Your task to perform on an android device: Open calendar and show me the second week of next month Image 0: 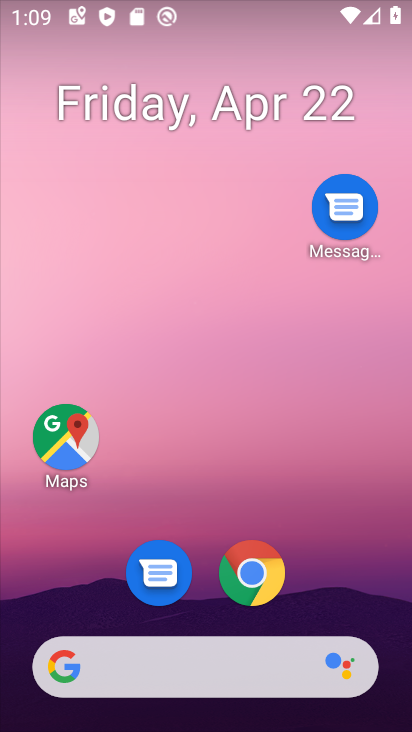
Step 0: drag from (329, 601) to (327, 212)
Your task to perform on an android device: Open calendar and show me the second week of next month Image 1: 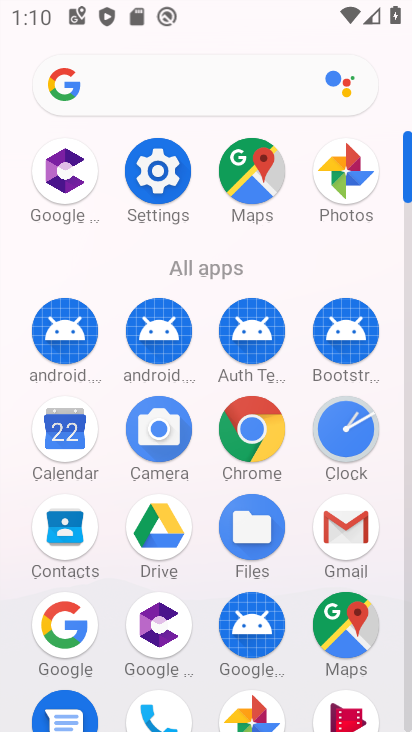
Step 1: click (72, 444)
Your task to perform on an android device: Open calendar and show me the second week of next month Image 2: 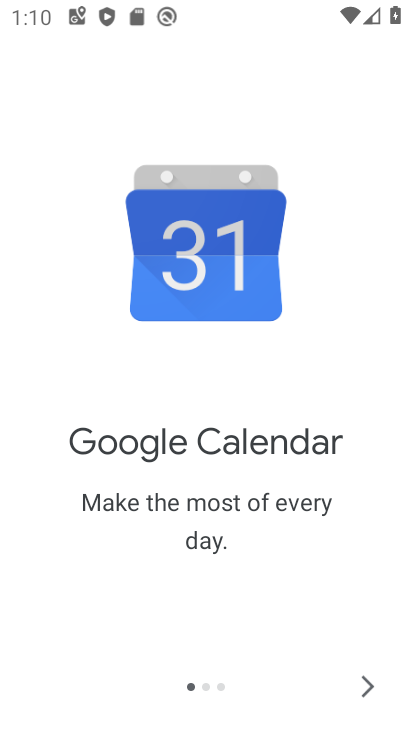
Step 2: click (368, 681)
Your task to perform on an android device: Open calendar and show me the second week of next month Image 3: 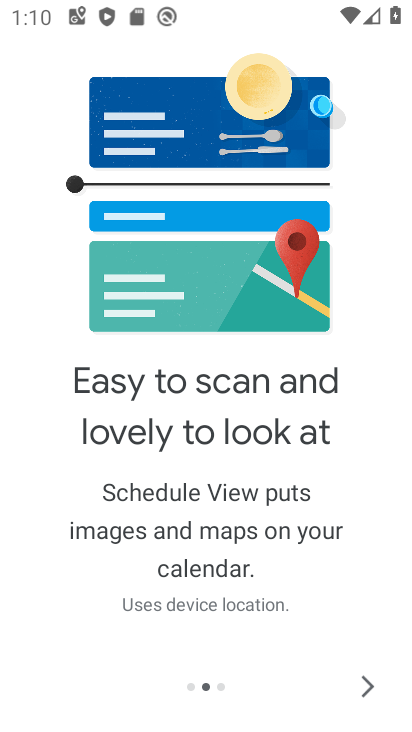
Step 3: click (368, 681)
Your task to perform on an android device: Open calendar and show me the second week of next month Image 4: 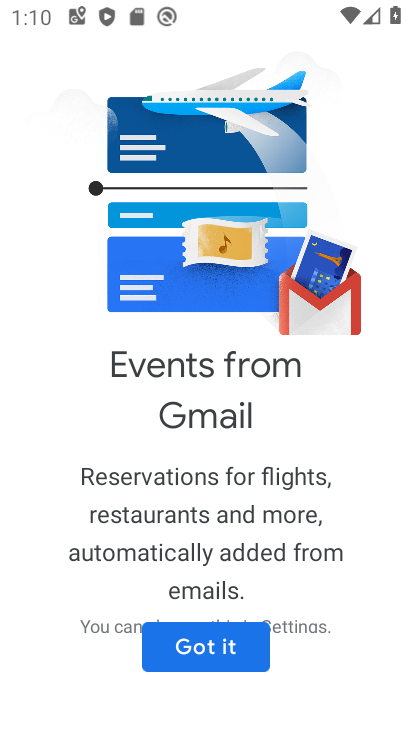
Step 4: click (221, 660)
Your task to perform on an android device: Open calendar and show me the second week of next month Image 5: 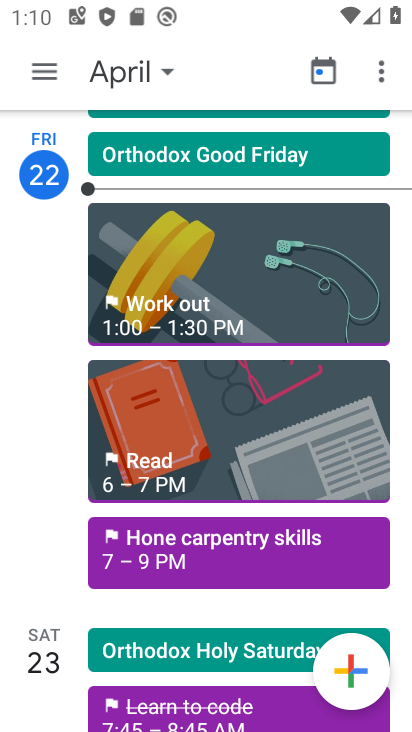
Step 5: click (158, 67)
Your task to perform on an android device: Open calendar and show me the second week of next month Image 6: 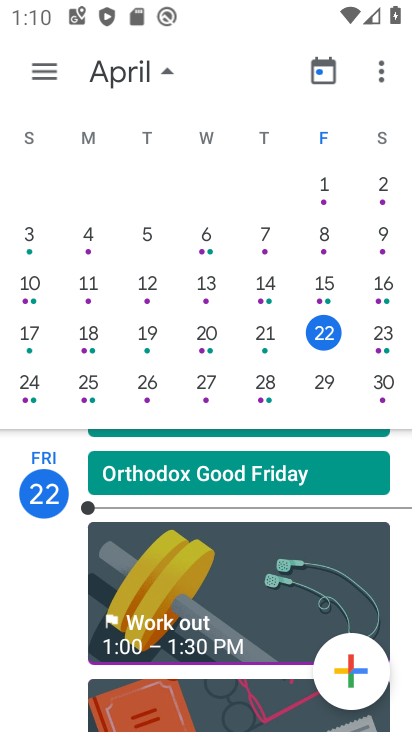
Step 6: drag from (334, 314) to (2, 262)
Your task to perform on an android device: Open calendar and show me the second week of next month Image 7: 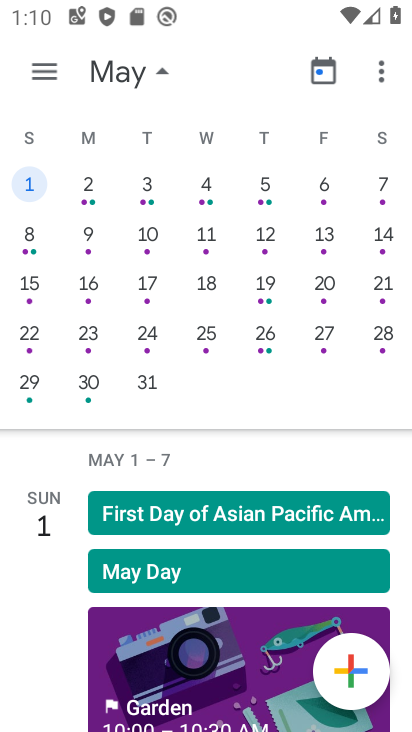
Step 7: click (38, 250)
Your task to perform on an android device: Open calendar and show me the second week of next month Image 8: 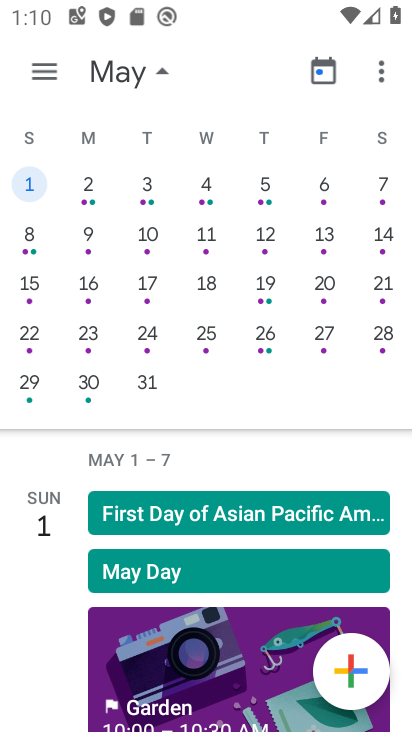
Step 8: click (93, 256)
Your task to perform on an android device: Open calendar and show me the second week of next month Image 9: 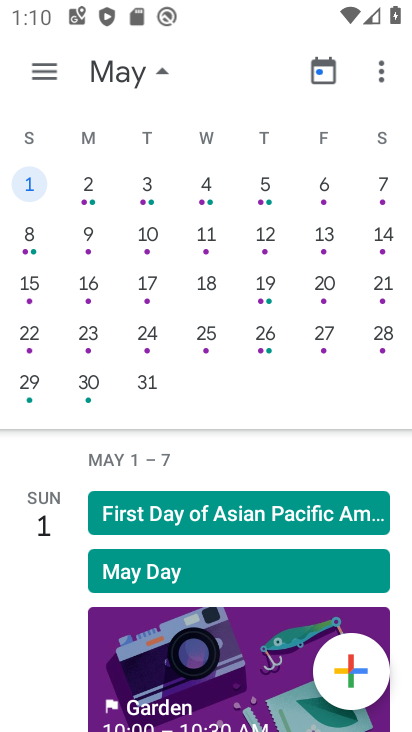
Step 9: click (155, 257)
Your task to perform on an android device: Open calendar and show me the second week of next month Image 10: 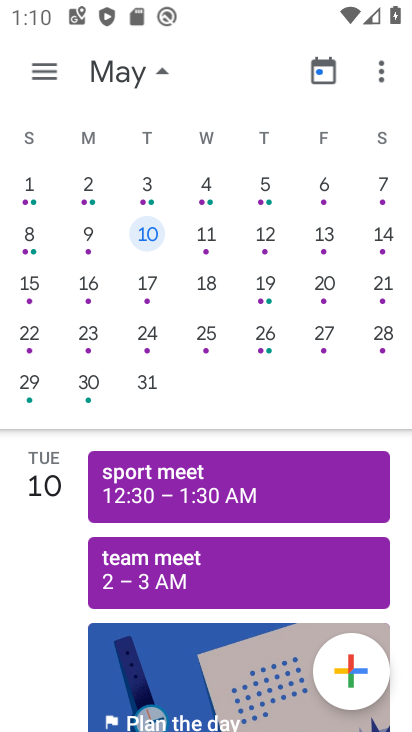
Step 10: click (205, 257)
Your task to perform on an android device: Open calendar and show me the second week of next month Image 11: 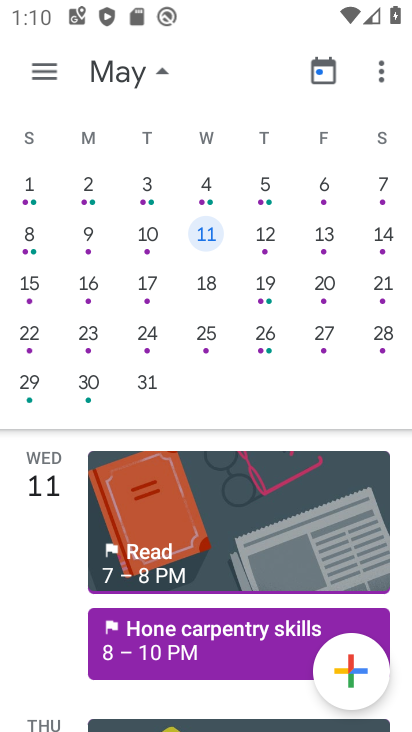
Step 11: click (265, 252)
Your task to perform on an android device: Open calendar and show me the second week of next month Image 12: 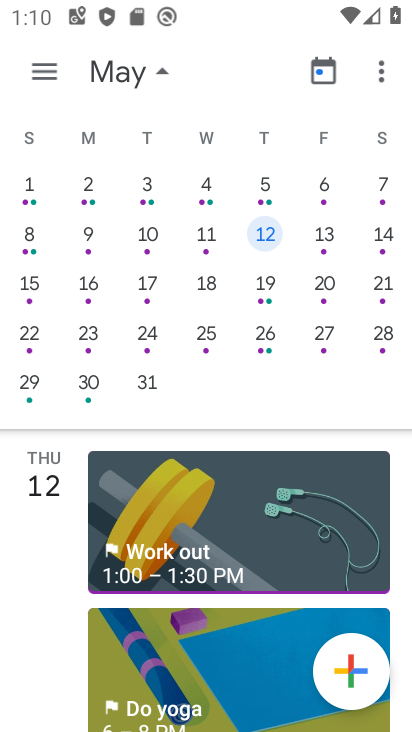
Step 12: click (326, 252)
Your task to perform on an android device: Open calendar and show me the second week of next month Image 13: 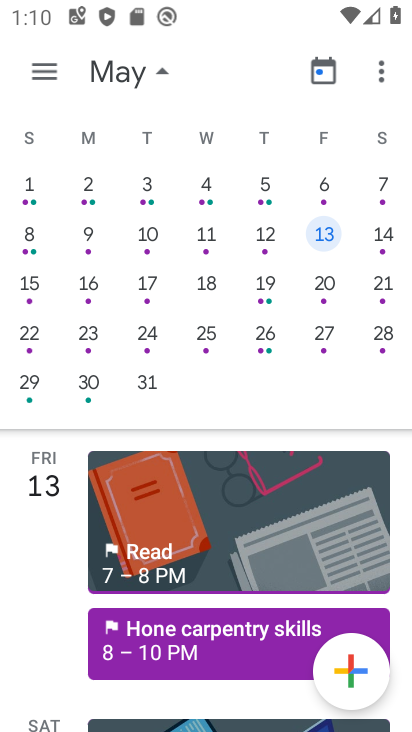
Step 13: click (384, 253)
Your task to perform on an android device: Open calendar and show me the second week of next month Image 14: 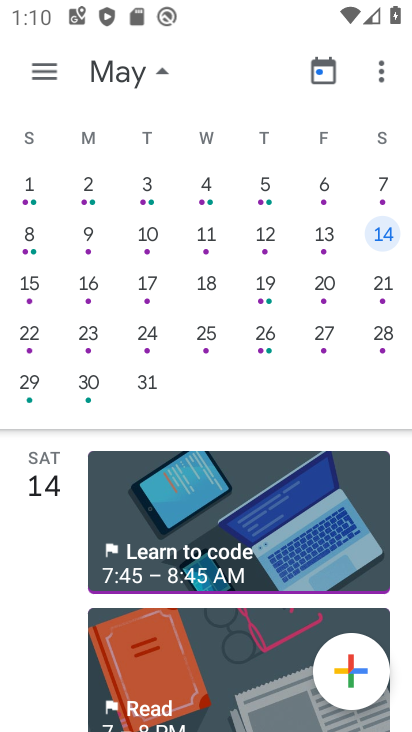
Step 14: task complete